Your task to perform on an android device: Is it going to rain tomorrow? Image 0: 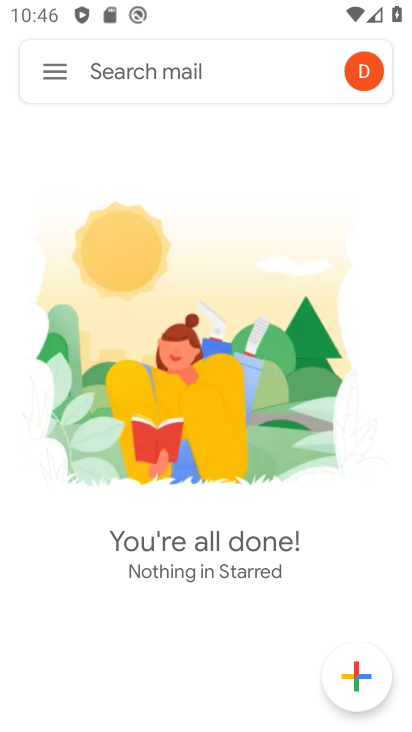
Step 0: press home button
Your task to perform on an android device: Is it going to rain tomorrow? Image 1: 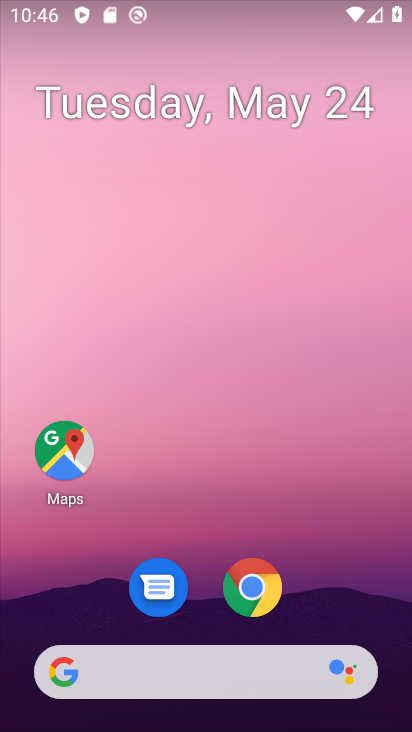
Step 1: click (251, 603)
Your task to perform on an android device: Is it going to rain tomorrow? Image 2: 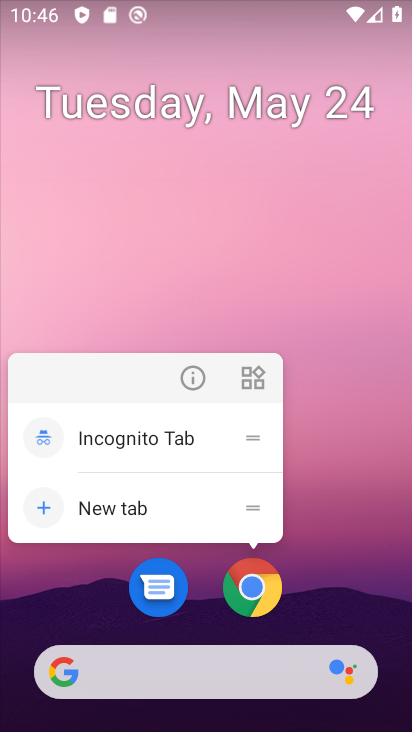
Step 2: click (271, 613)
Your task to perform on an android device: Is it going to rain tomorrow? Image 3: 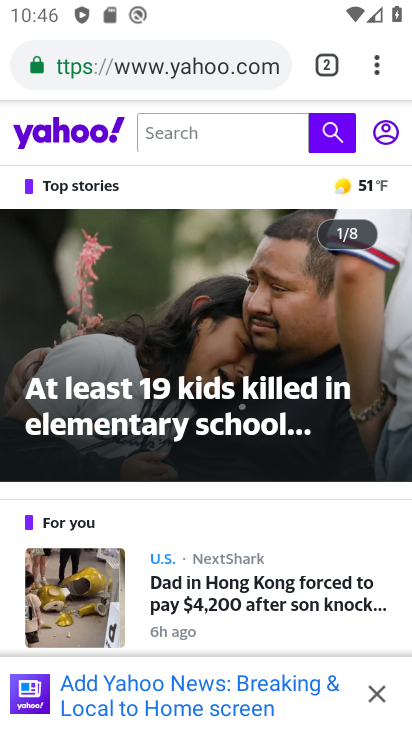
Step 3: click (109, 59)
Your task to perform on an android device: Is it going to rain tomorrow? Image 4: 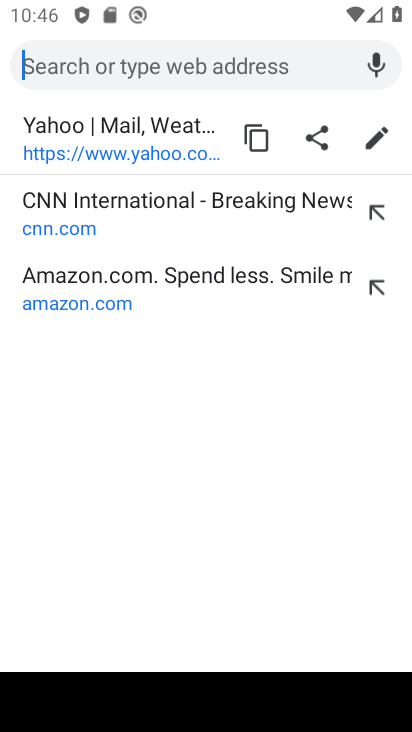
Step 4: type "Is it going to rain tomorrow?"
Your task to perform on an android device: Is it going to rain tomorrow? Image 5: 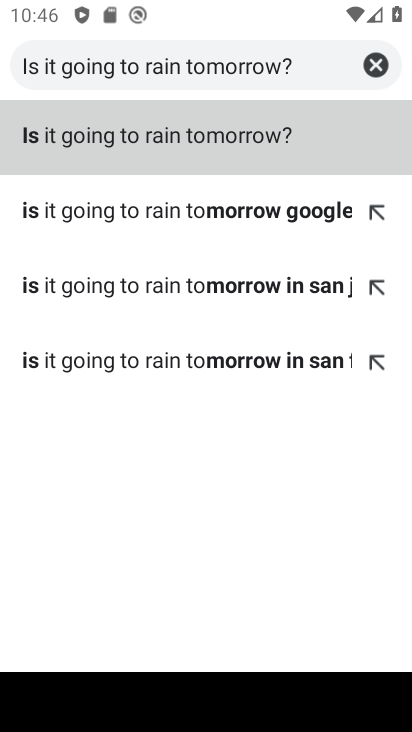
Step 5: click (105, 125)
Your task to perform on an android device: Is it going to rain tomorrow? Image 6: 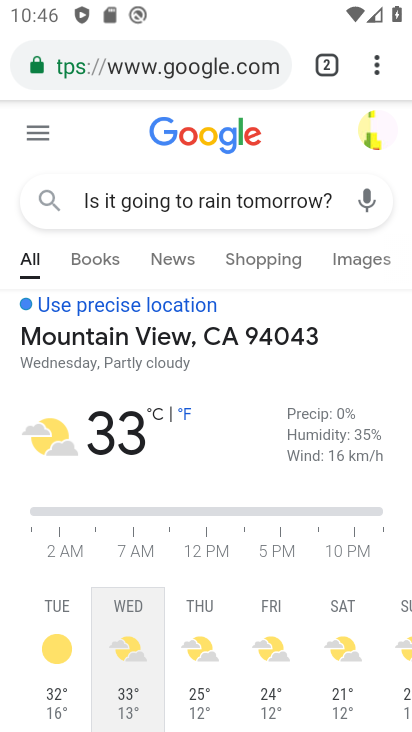
Step 6: task complete